Your task to perform on an android device: Is it going to rain tomorrow? Image 0: 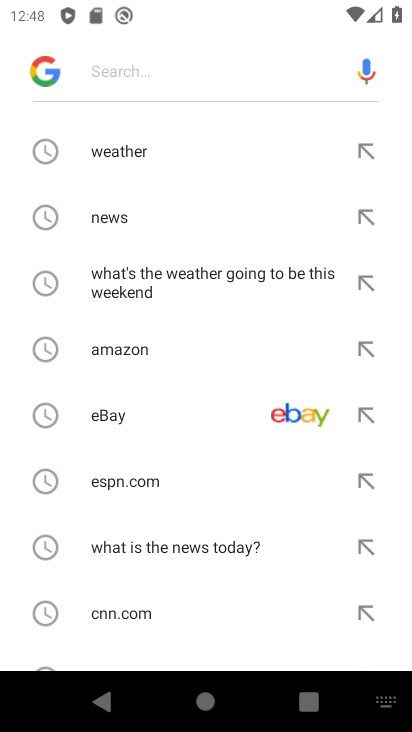
Step 0: press home button
Your task to perform on an android device: Is it going to rain tomorrow? Image 1: 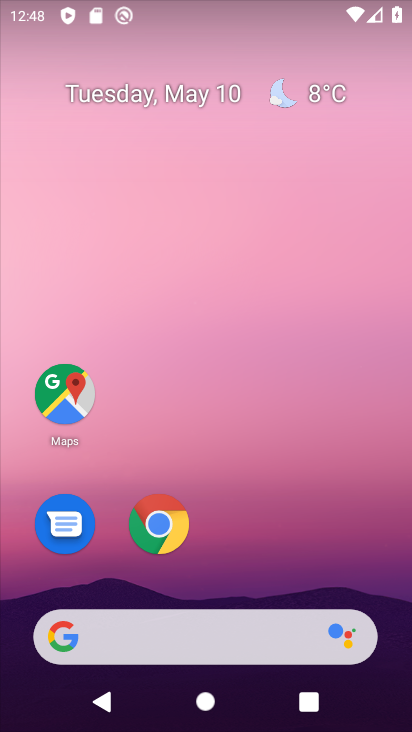
Step 1: click (296, 88)
Your task to perform on an android device: Is it going to rain tomorrow? Image 2: 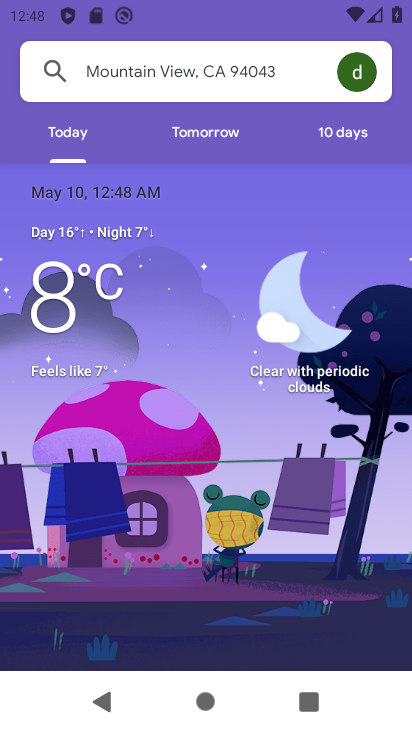
Step 2: click (213, 135)
Your task to perform on an android device: Is it going to rain tomorrow? Image 3: 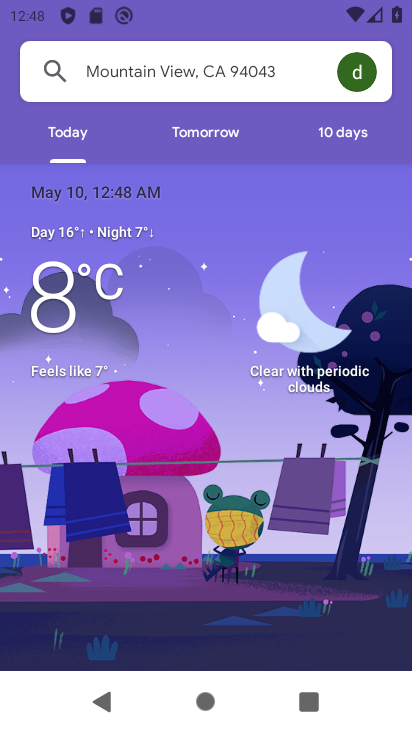
Step 3: click (216, 135)
Your task to perform on an android device: Is it going to rain tomorrow? Image 4: 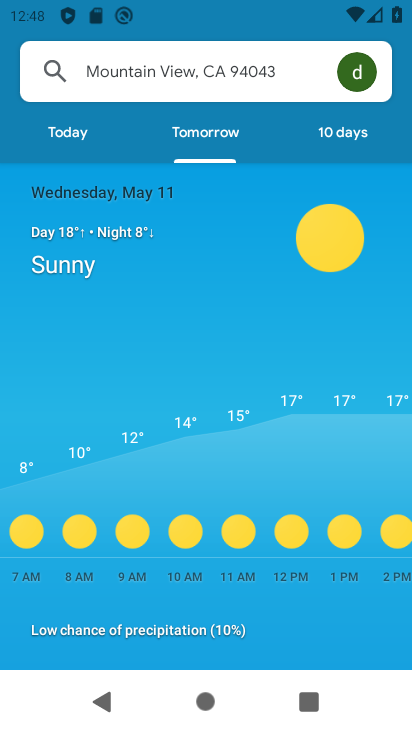
Step 4: task complete